Your task to perform on an android device: Show me popular videos on Youtube Image 0: 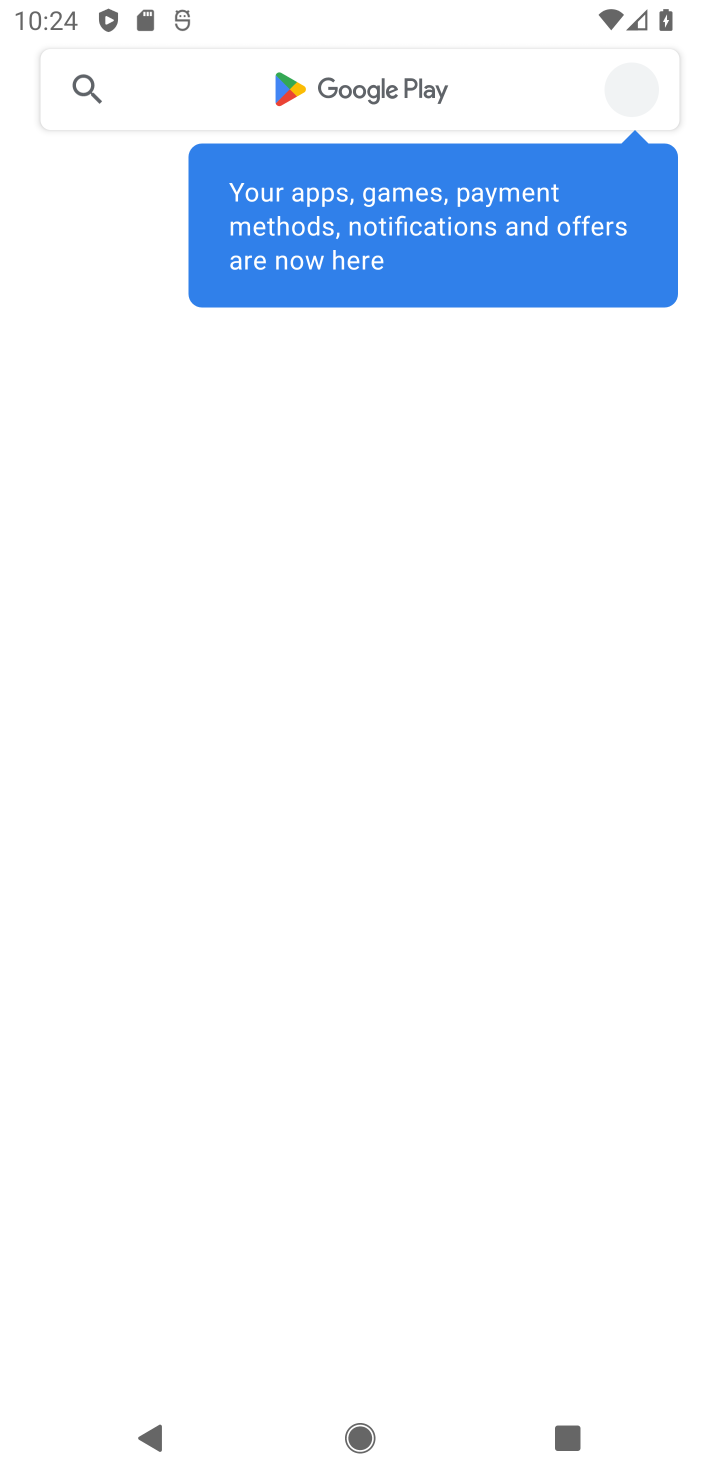
Step 0: press home button
Your task to perform on an android device: Show me popular videos on Youtube Image 1: 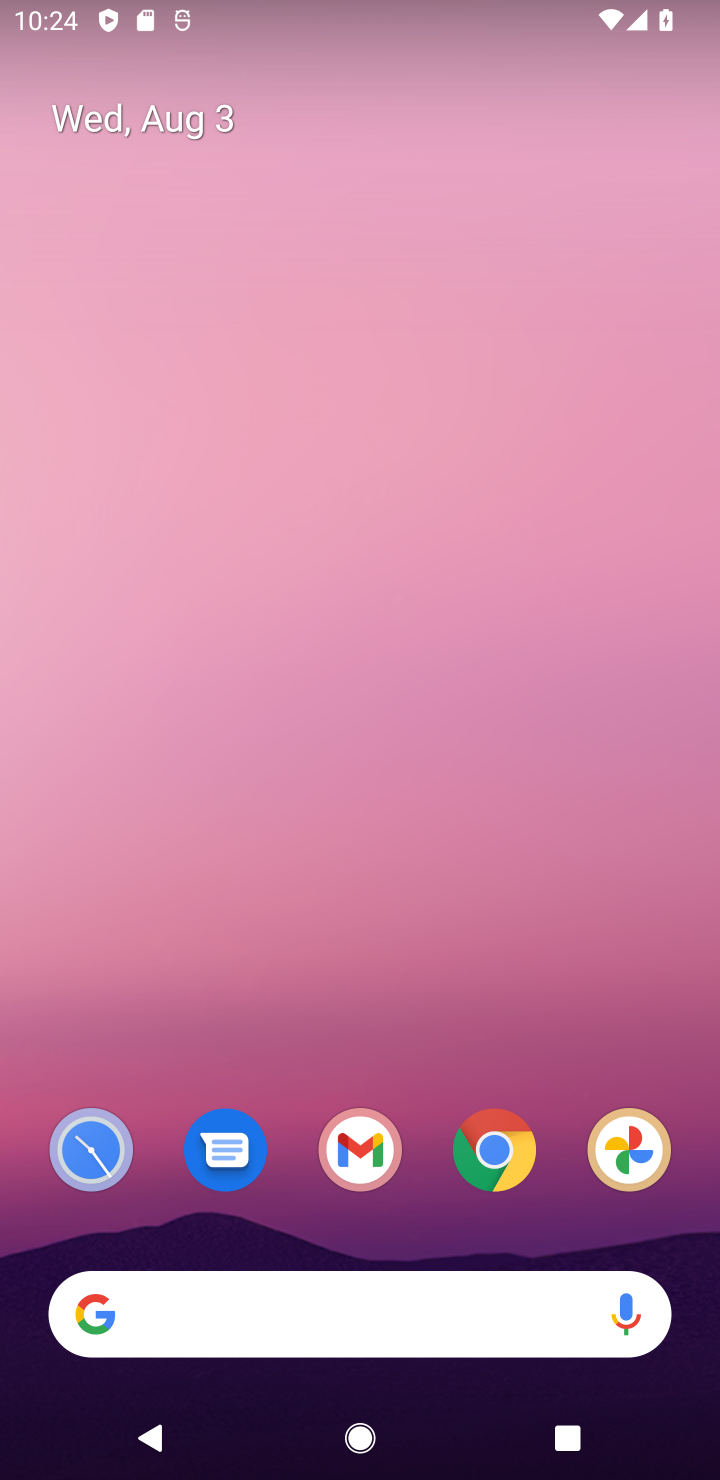
Step 1: drag from (555, 1039) to (546, 166)
Your task to perform on an android device: Show me popular videos on Youtube Image 2: 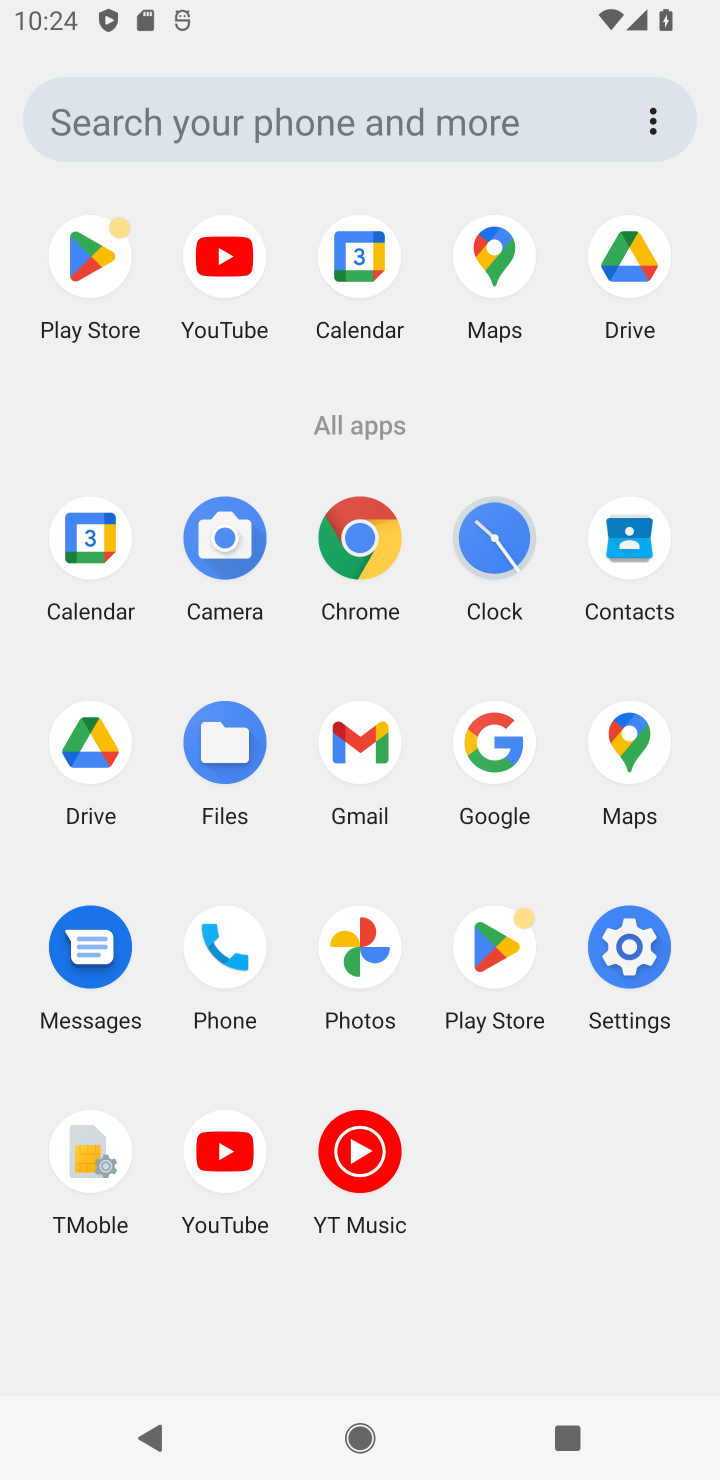
Step 2: click (216, 1163)
Your task to perform on an android device: Show me popular videos on Youtube Image 3: 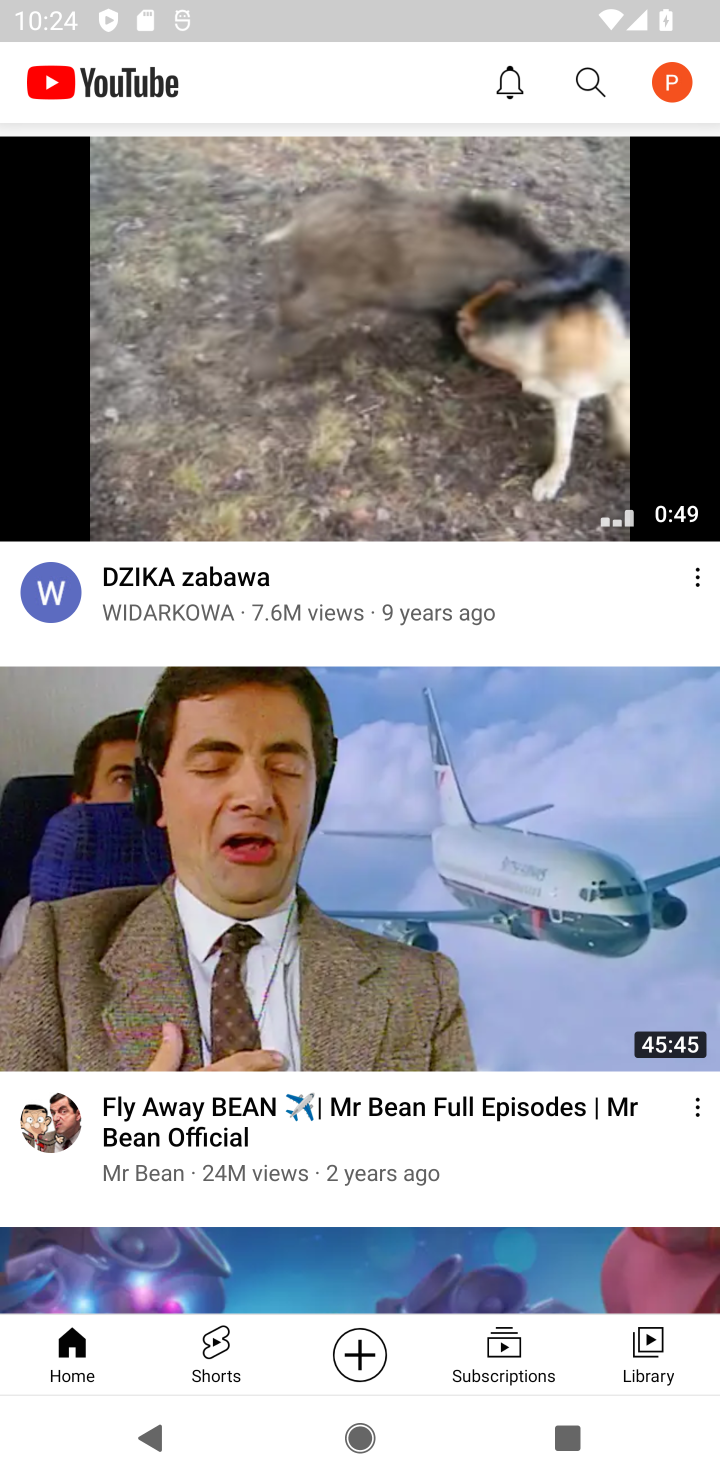
Step 3: task complete